Your task to perform on an android device: Go to sound settings Image 0: 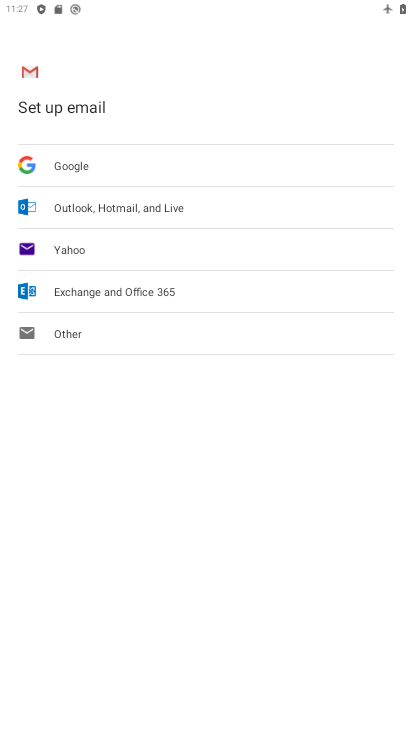
Step 0: press home button
Your task to perform on an android device: Go to sound settings Image 1: 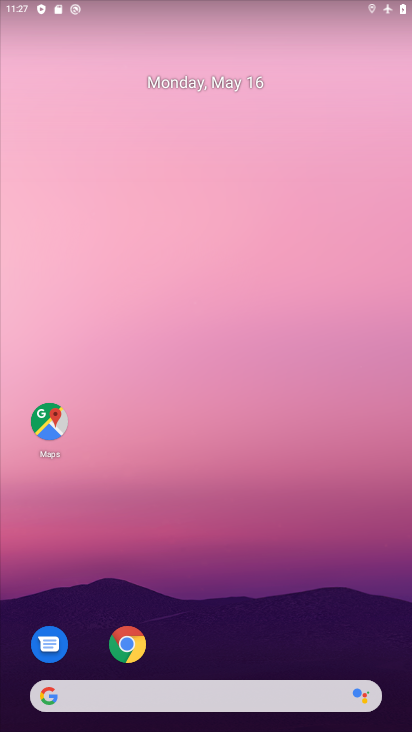
Step 1: drag from (228, 614) to (213, 219)
Your task to perform on an android device: Go to sound settings Image 2: 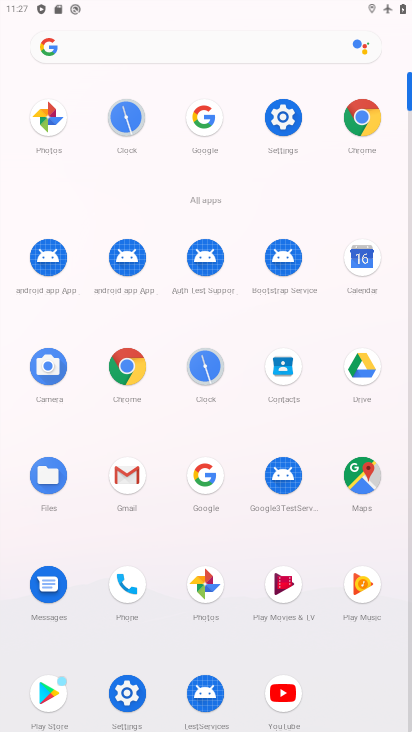
Step 2: click (276, 109)
Your task to perform on an android device: Go to sound settings Image 3: 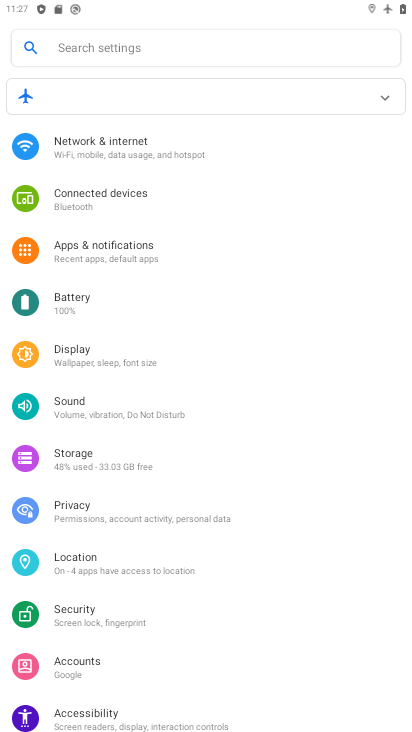
Step 3: click (149, 416)
Your task to perform on an android device: Go to sound settings Image 4: 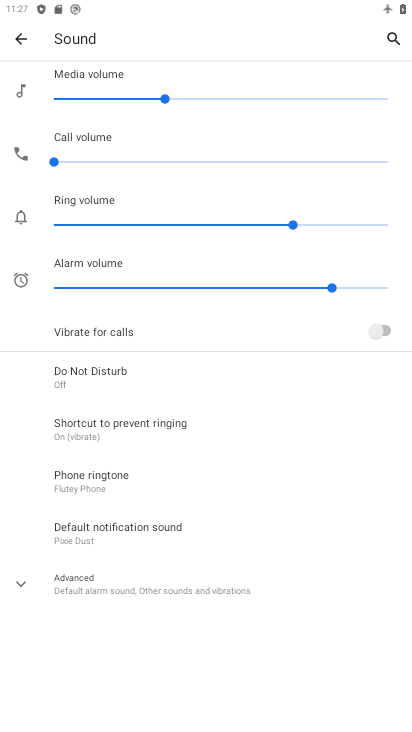
Step 4: task complete